Your task to perform on an android device: change the clock display to digital Image 0: 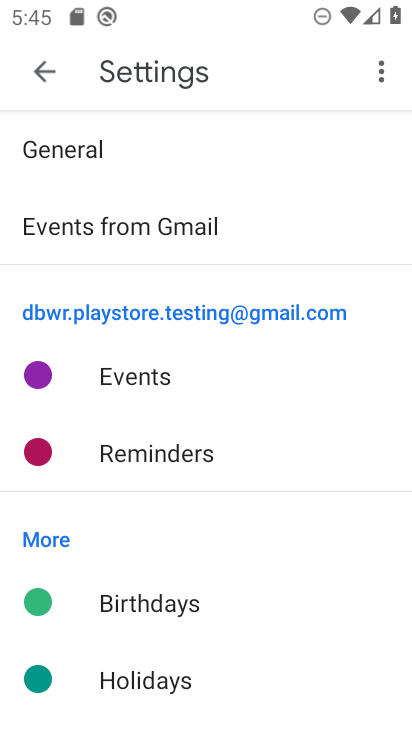
Step 0: press home button
Your task to perform on an android device: change the clock display to digital Image 1: 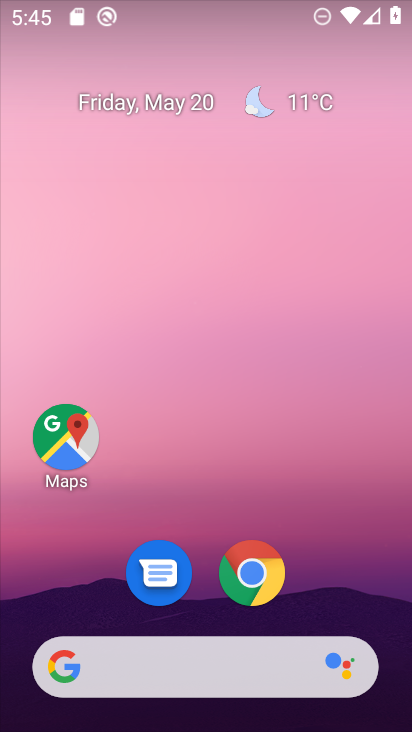
Step 1: drag from (241, 266) to (185, 83)
Your task to perform on an android device: change the clock display to digital Image 2: 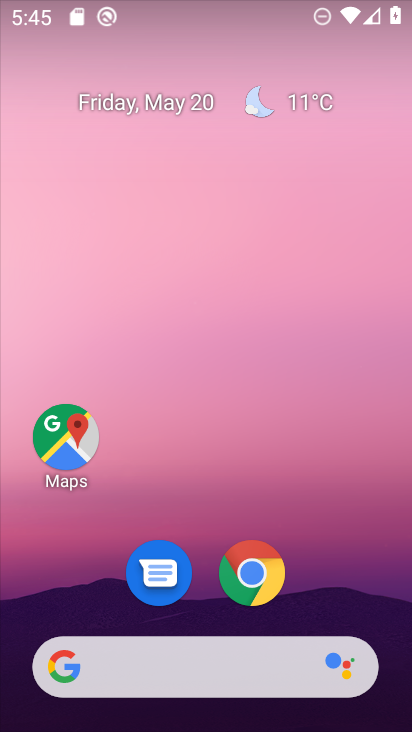
Step 2: drag from (249, 275) to (159, 3)
Your task to perform on an android device: change the clock display to digital Image 3: 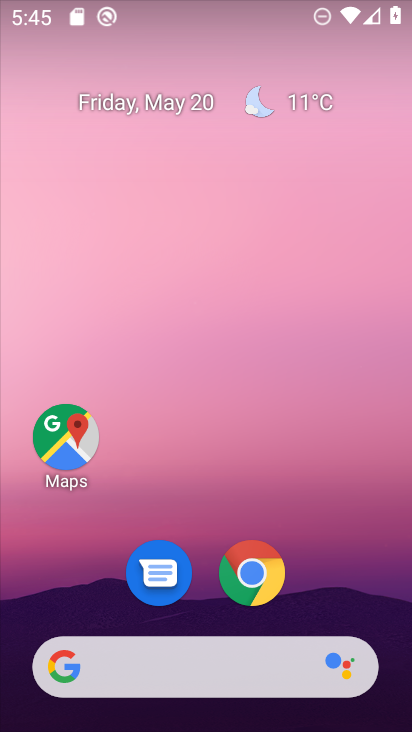
Step 3: drag from (332, 508) to (170, 9)
Your task to perform on an android device: change the clock display to digital Image 4: 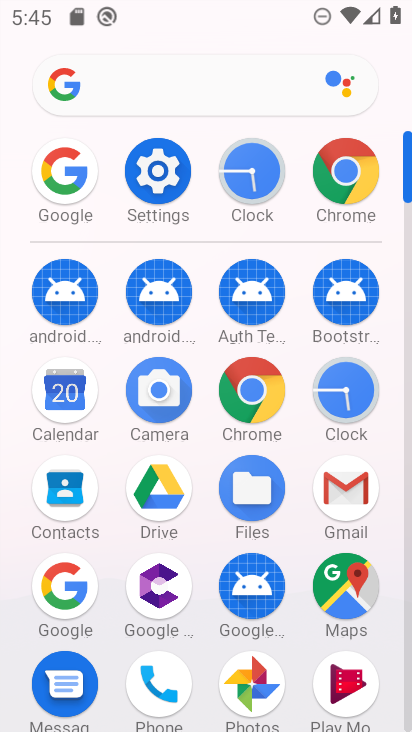
Step 4: click (242, 196)
Your task to perform on an android device: change the clock display to digital Image 5: 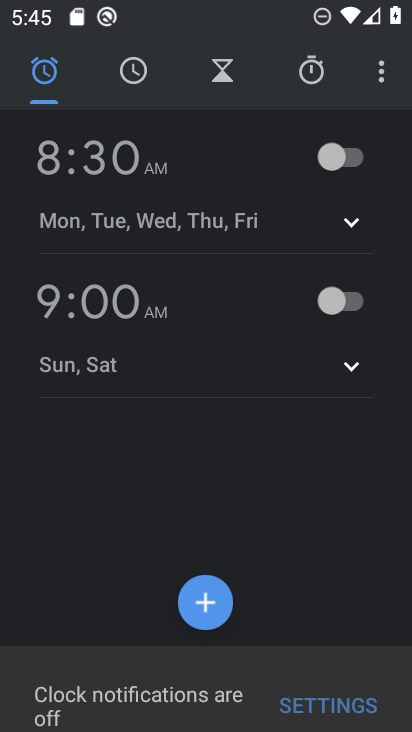
Step 5: click (362, 97)
Your task to perform on an android device: change the clock display to digital Image 6: 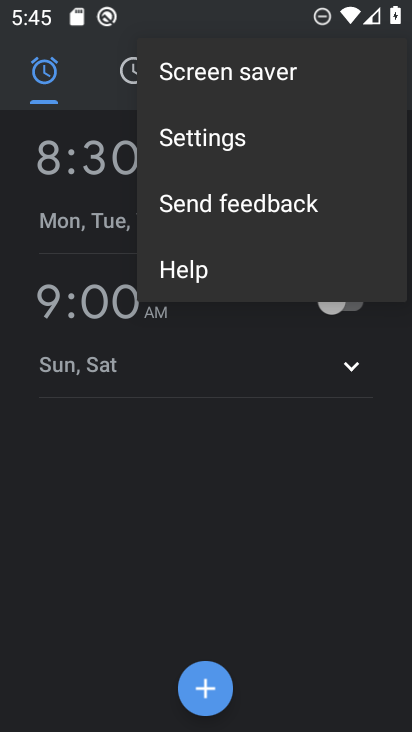
Step 6: click (292, 128)
Your task to perform on an android device: change the clock display to digital Image 7: 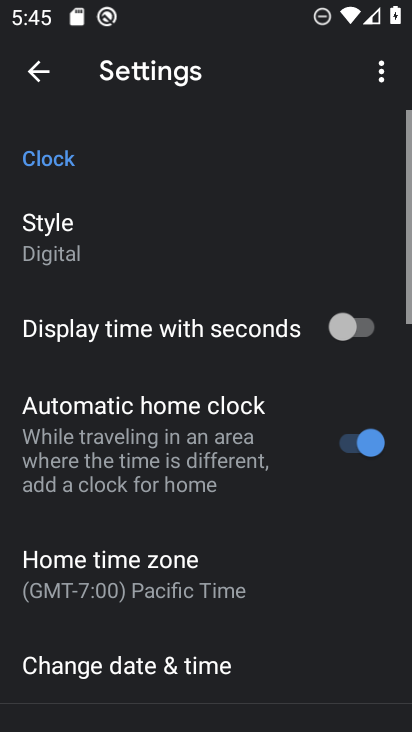
Step 7: click (52, 230)
Your task to perform on an android device: change the clock display to digital Image 8: 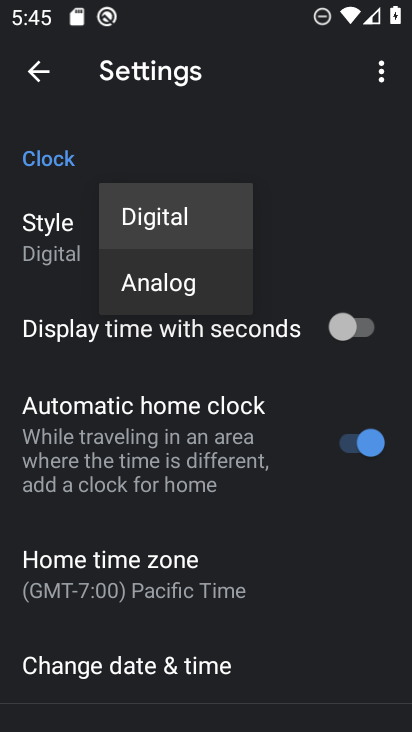
Step 8: task complete